Your task to perform on an android device: toggle data saver in the chrome app Image 0: 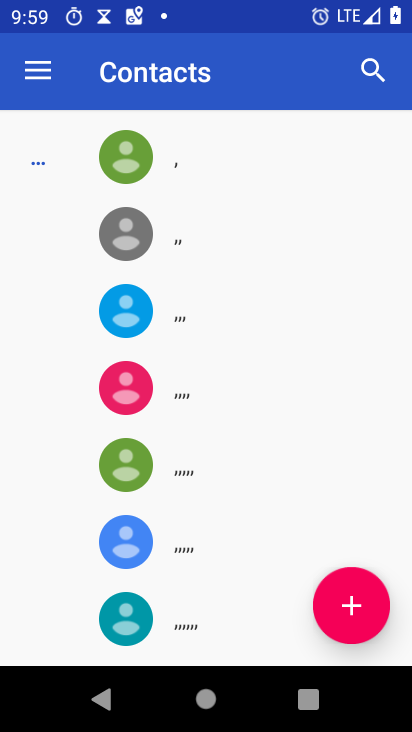
Step 0: press home button
Your task to perform on an android device: toggle data saver in the chrome app Image 1: 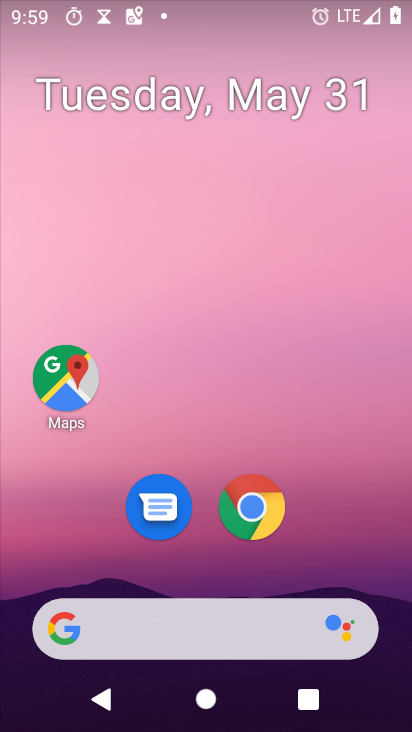
Step 1: click (260, 509)
Your task to perform on an android device: toggle data saver in the chrome app Image 2: 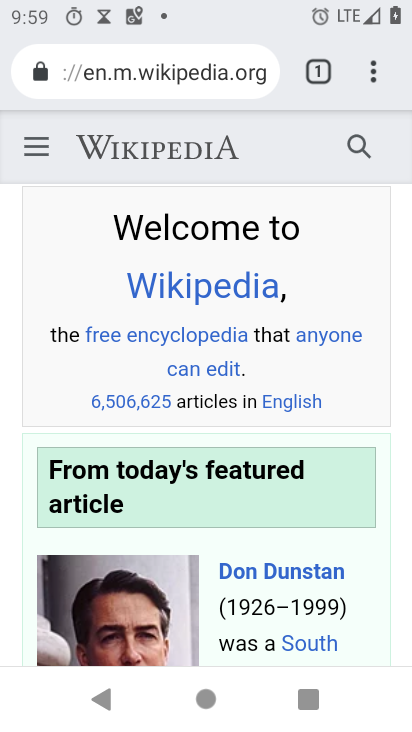
Step 2: click (364, 67)
Your task to perform on an android device: toggle data saver in the chrome app Image 3: 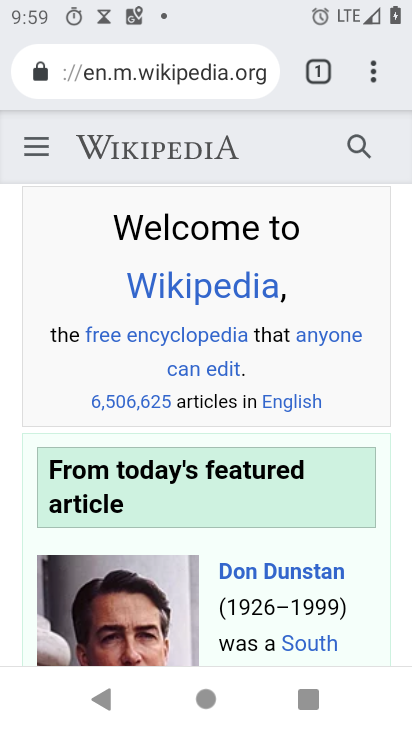
Step 3: click (372, 79)
Your task to perform on an android device: toggle data saver in the chrome app Image 4: 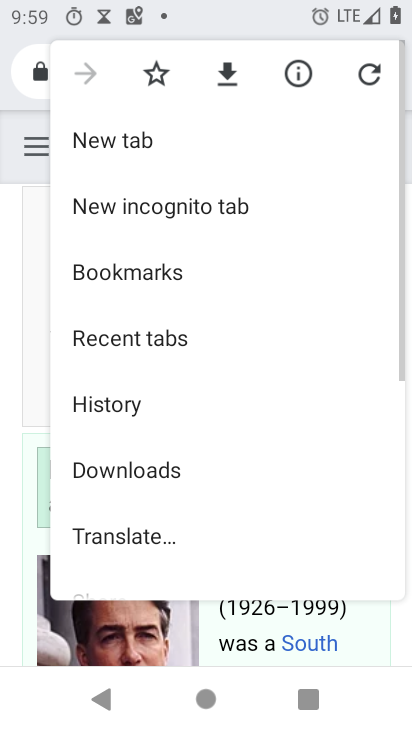
Step 4: drag from (54, 511) to (325, 34)
Your task to perform on an android device: toggle data saver in the chrome app Image 5: 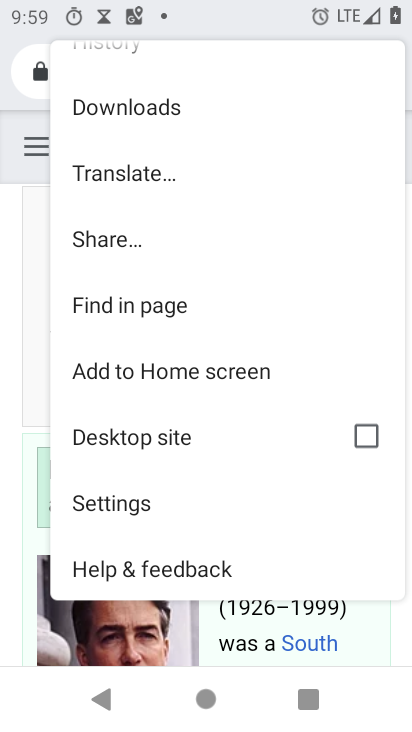
Step 5: click (148, 502)
Your task to perform on an android device: toggle data saver in the chrome app Image 6: 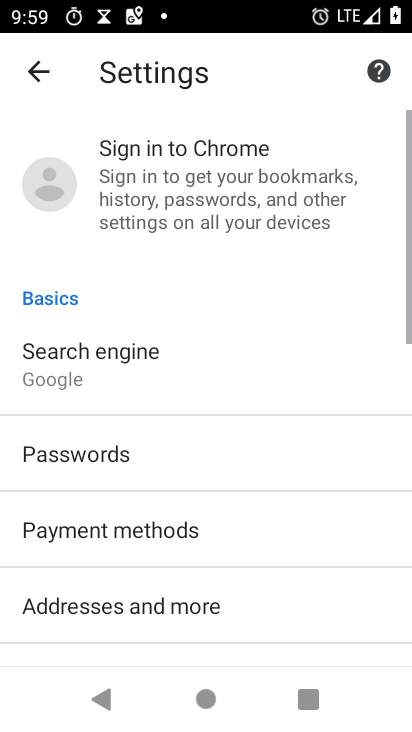
Step 6: drag from (29, 515) to (268, 49)
Your task to perform on an android device: toggle data saver in the chrome app Image 7: 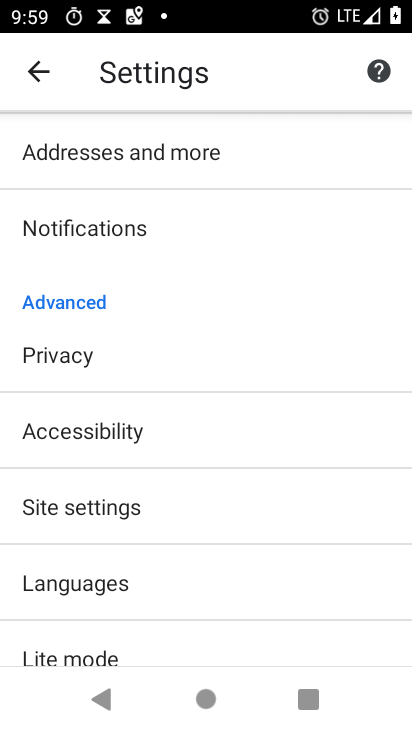
Step 7: drag from (30, 561) to (178, 263)
Your task to perform on an android device: toggle data saver in the chrome app Image 8: 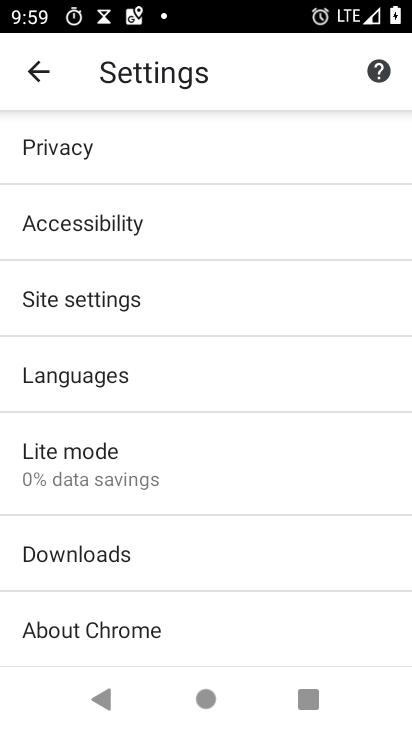
Step 8: click (60, 472)
Your task to perform on an android device: toggle data saver in the chrome app Image 9: 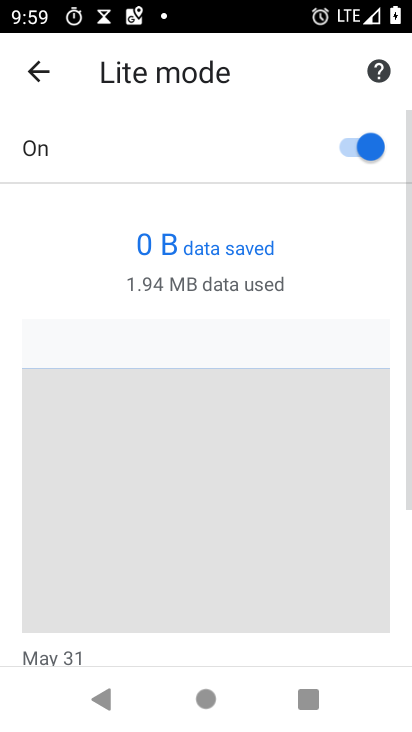
Step 9: click (356, 148)
Your task to perform on an android device: toggle data saver in the chrome app Image 10: 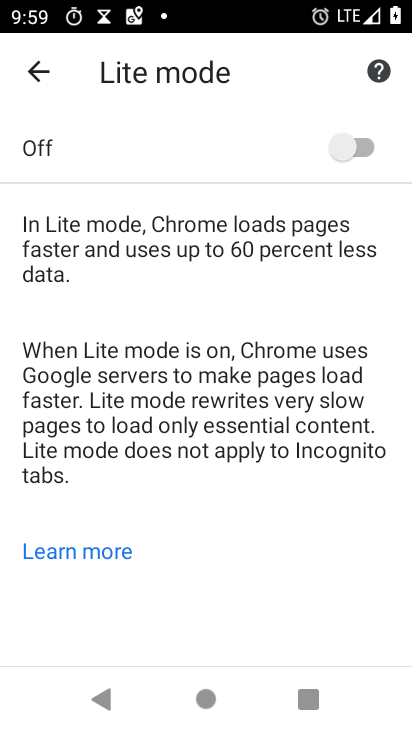
Step 10: task complete